Your task to perform on an android device: add a label to a message in the gmail app Image 0: 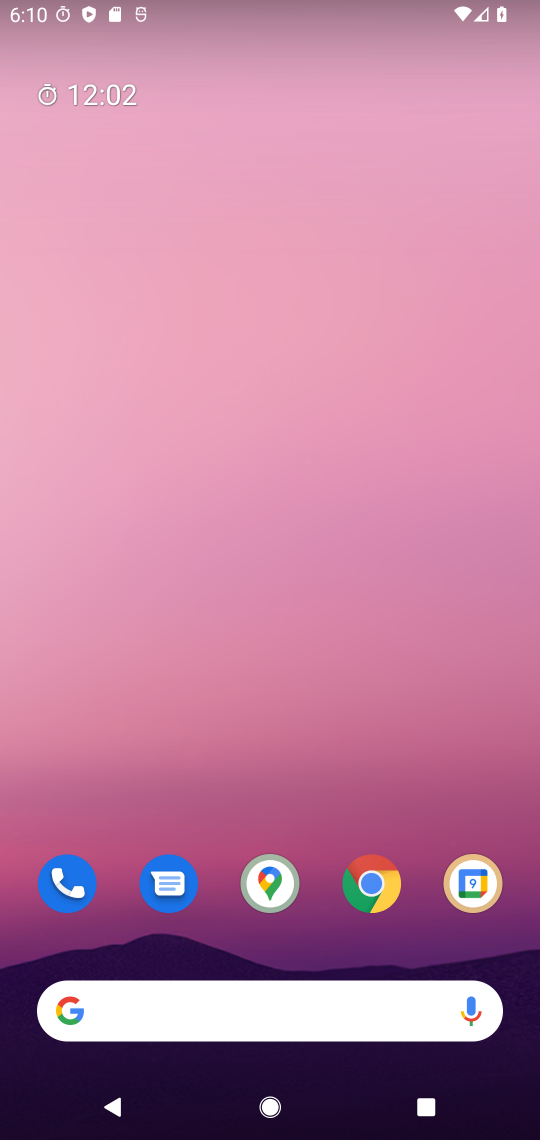
Step 0: drag from (306, 759) to (294, 68)
Your task to perform on an android device: add a label to a message in the gmail app Image 1: 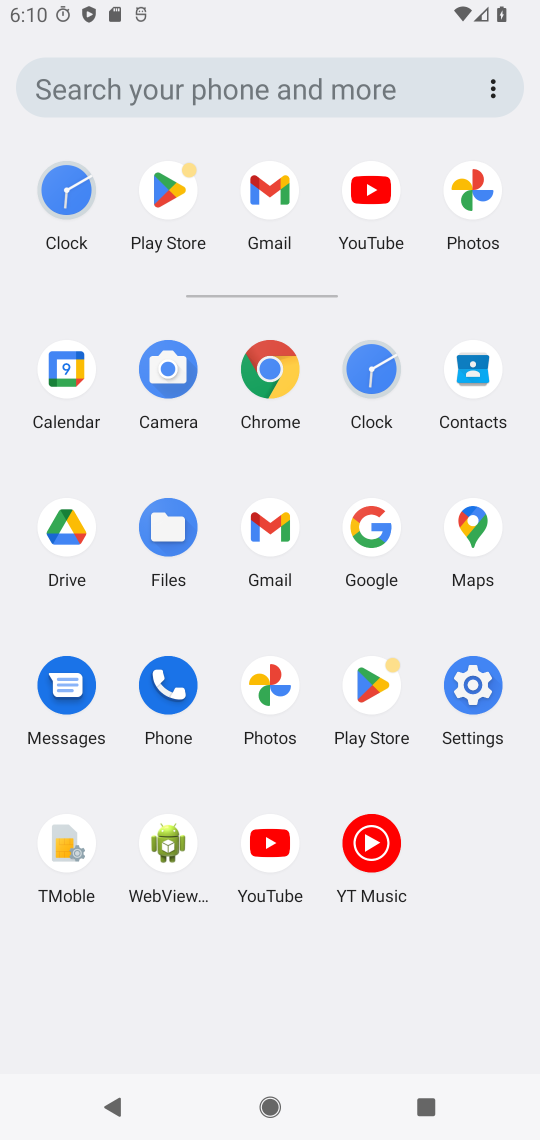
Step 1: click (253, 222)
Your task to perform on an android device: add a label to a message in the gmail app Image 2: 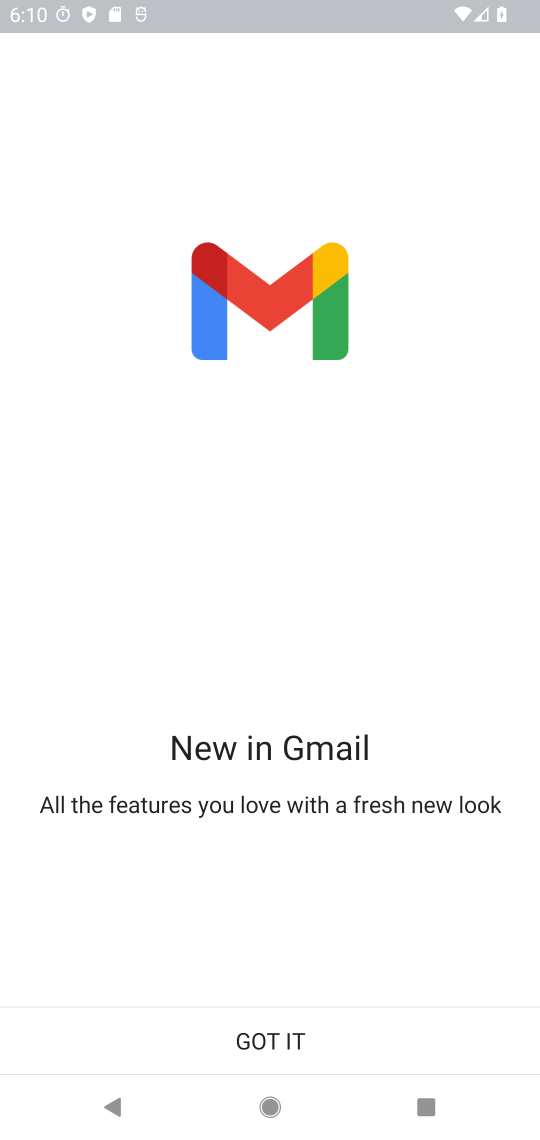
Step 2: click (355, 1031)
Your task to perform on an android device: add a label to a message in the gmail app Image 3: 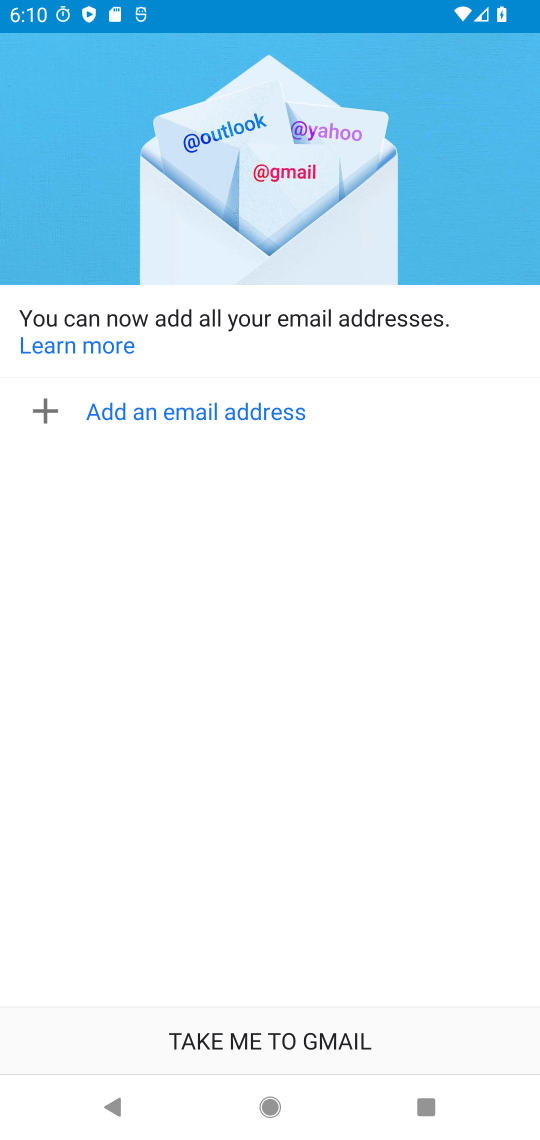
Step 3: click (312, 1028)
Your task to perform on an android device: add a label to a message in the gmail app Image 4: 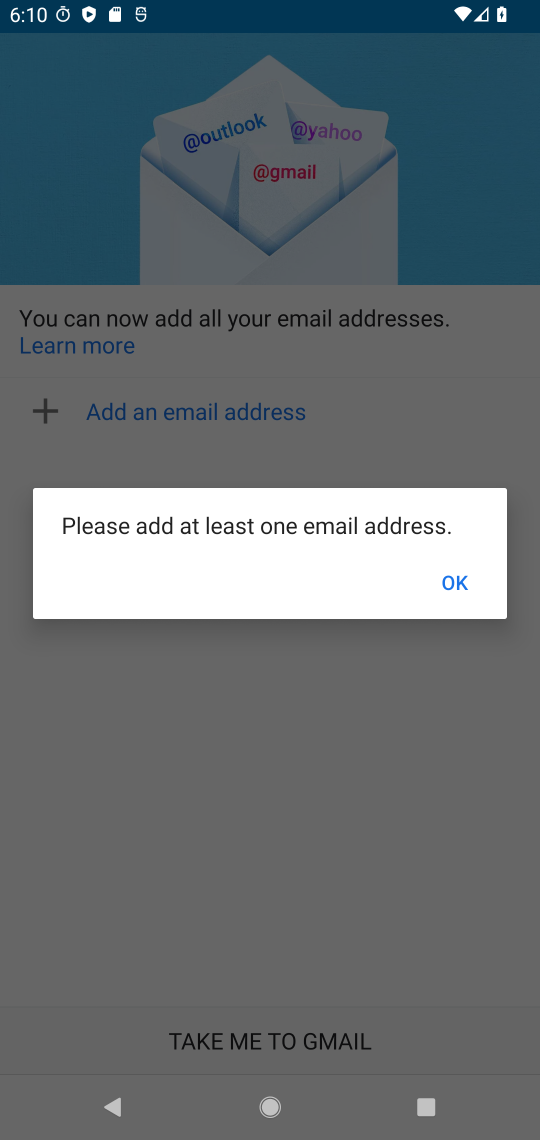
Step 4: click (454, 582)
Your task to perform on an android device: add a label to a message in the gmail app Image 5: 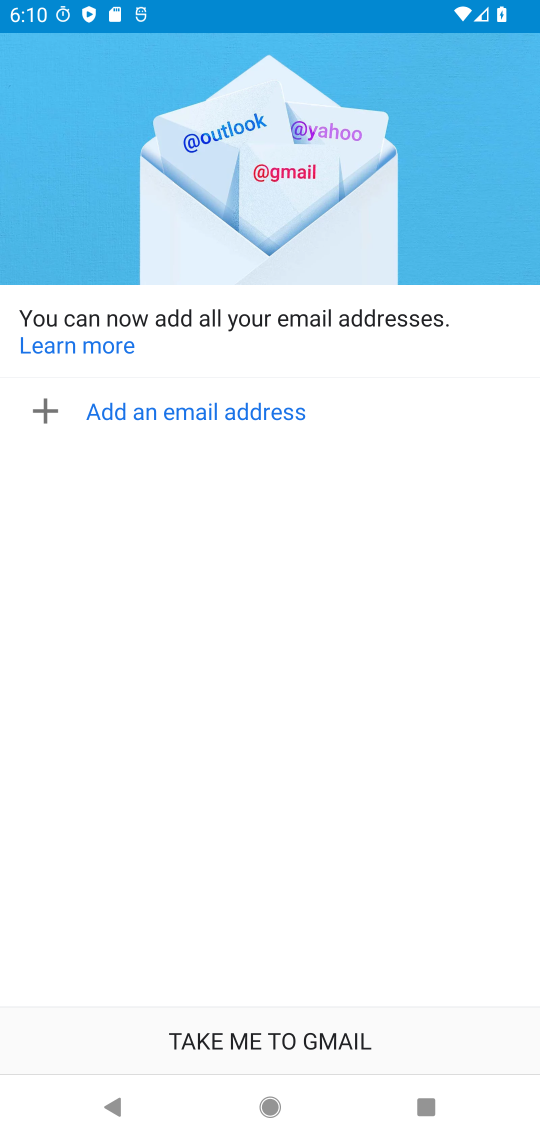
Step 5: click (253, 1025)
Your task to perform on an android device: add a label to a message in the gmail app Image 6: 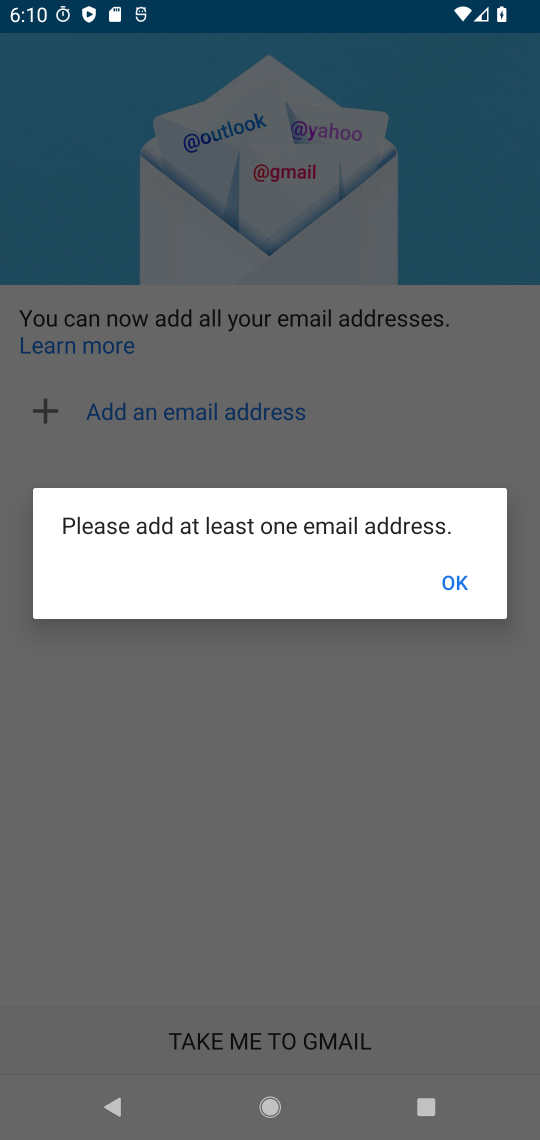
Step 6: task complete